Your task to perform on an android device: see sites visited before in the chrome app Image 0: 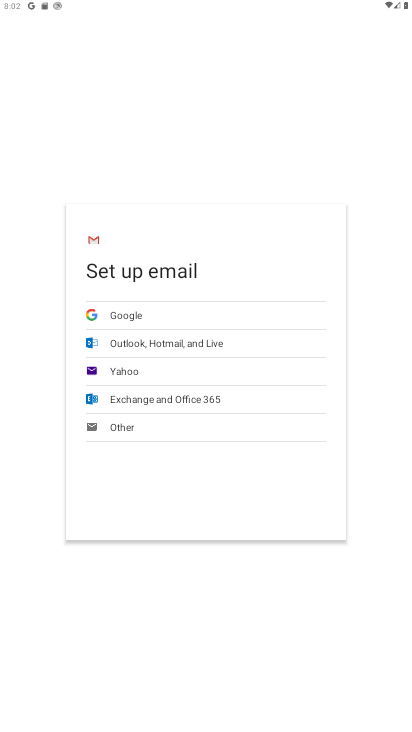
Step 0: press home button
Your task to perform on an android device: see sites visited before in the chrome app Image 1: 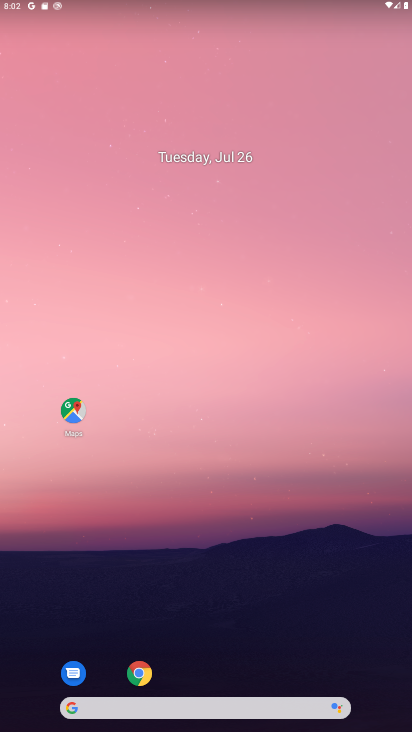
Step 1: click (145, 674)
Your task to perform on an android device: see sites visited before in the chrome app Image 2: 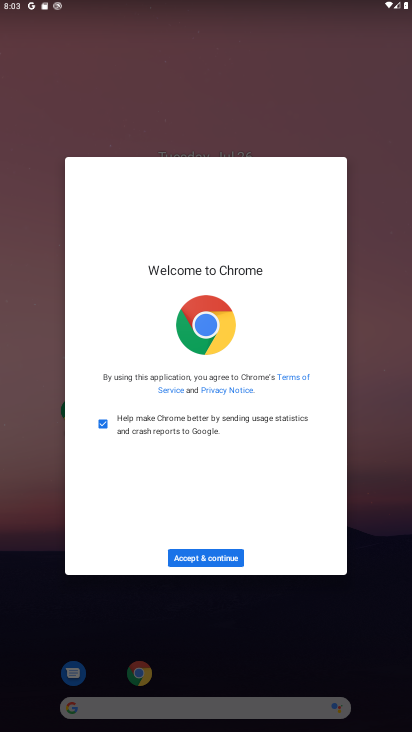
Step 2: click (223, 550)
Your task to perform on an android device: see sites visited before in the chrome app Image 3: 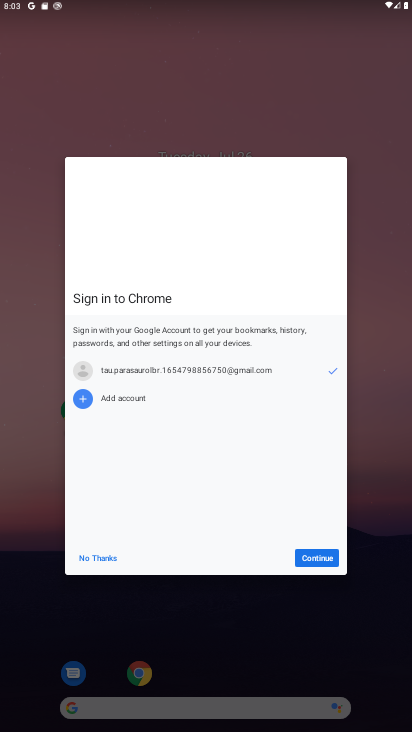
Step 3: click (309, 554)
Your task to perform on an android device: see sites visited before in the chrome app Image 4: 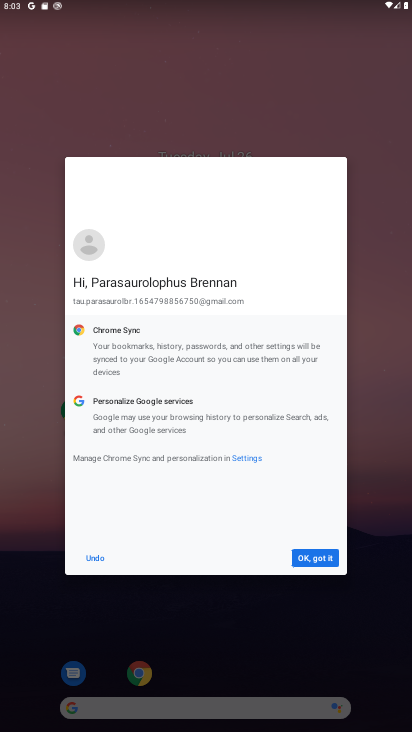
Step 4: click (311, 555)
Your task to perform on an android device: see sites visited before in the chrome app Image 5: 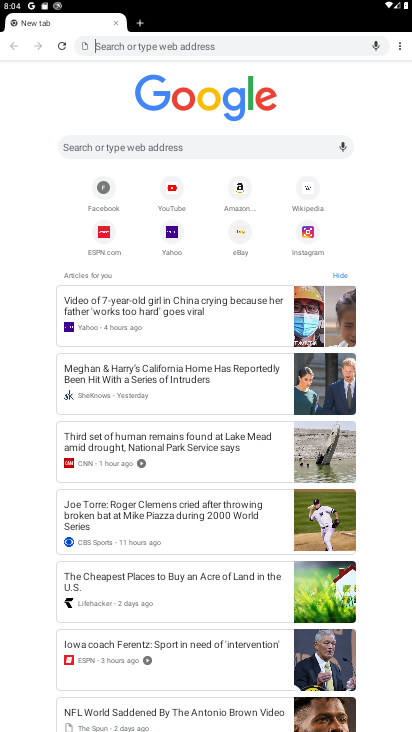
Step 5: click (400, 46)
Your task to perform on an android device: see sites visited before in the chrome app Image 6: 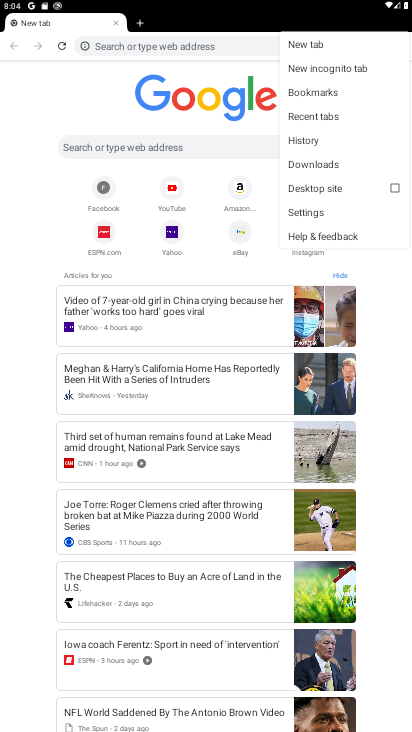
Step 6: click (306, 145)
Your task to perform on an android device: see sites visited before in the chrome app Image 7: 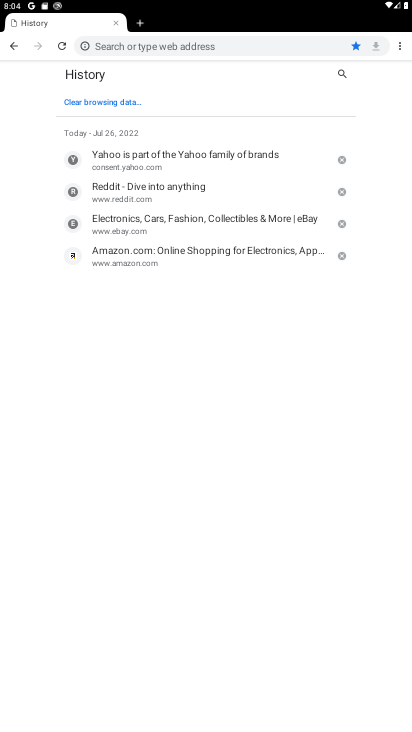
Step 7: task complete